Your task to perform on an android device: check data usage Image 0: 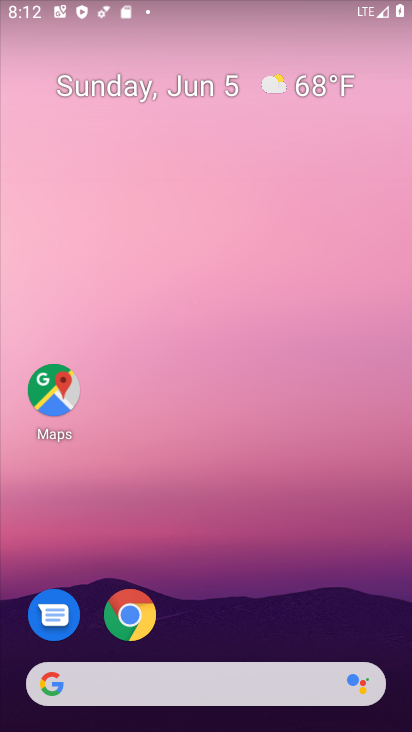
Step 0: drag from (163, 682) to (233, 248)
Your task to perform on an android device: check data usage Image 1: 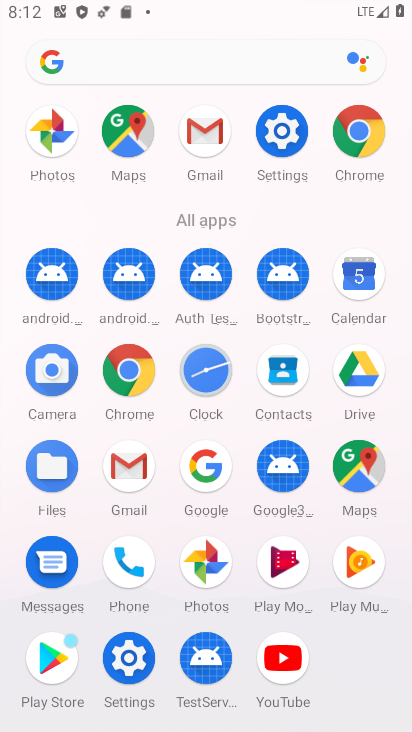
Step 1: click (279, 136)
Your task to perform on an android device: check data usage Image 2: 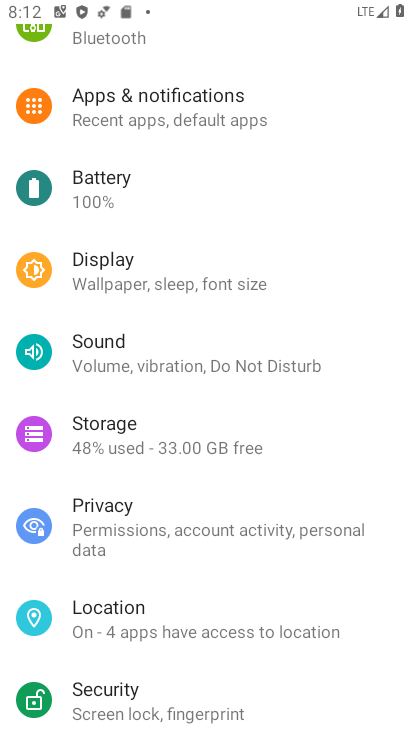
Step 2: drag from (203, 93) to (239, 475)
Your task to perform on an android device: check data usage Image 3: 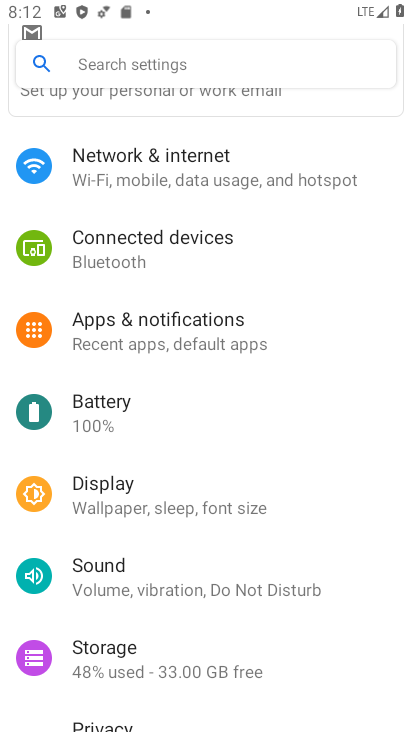
Step 3: click (227, 176)
Your task to perform on an android device: check data usage Image 4: 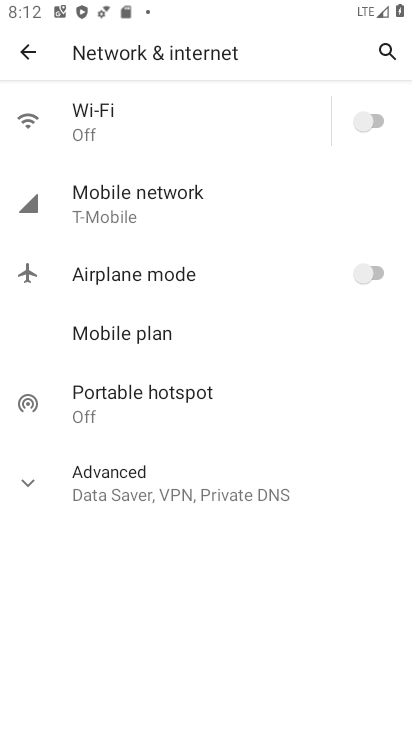
Step 4: click (150, 216)
Your task to perform on an android device: check data usage Image 5: 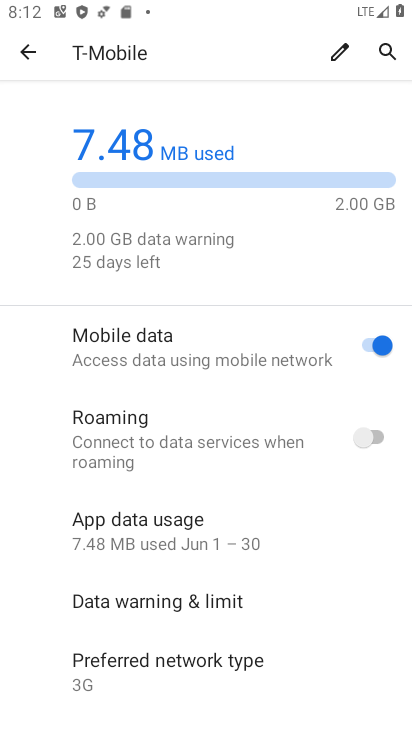
Step 5: task complete